Your task to perform on an android device: clear all cookies in the chrome app Image 0: 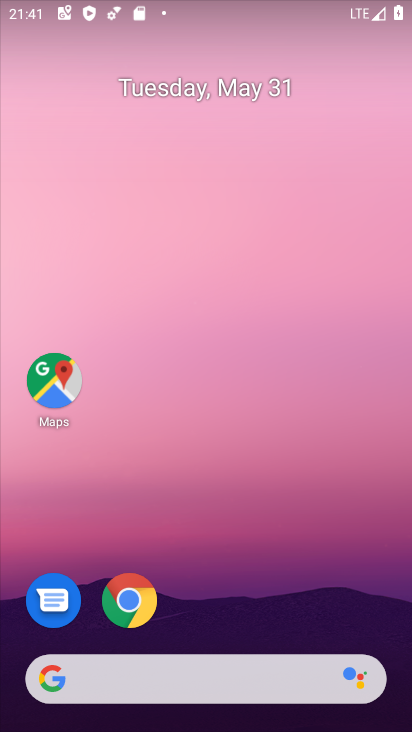
Step 0: click (144, 602)
Your task to perform on an android device: clear all cookies in the chrome app Image 1: 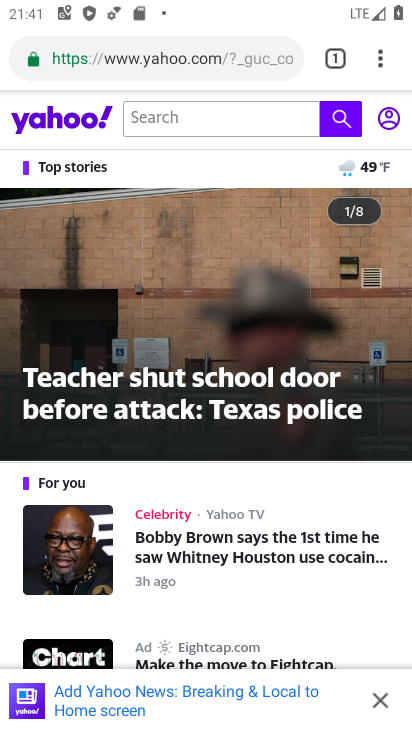
Step 1: drag from (379, 61) to (185, 392)
Your task to perform on an android device: clear all cookies in the chrome app Image 2: 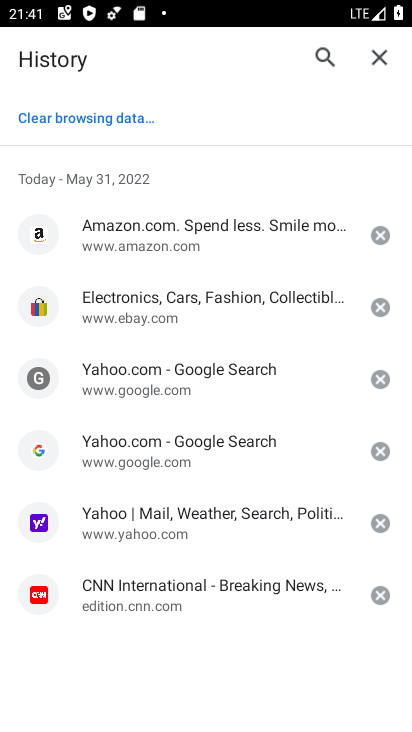
Step 2: click (48, 117)
Your task to perform on an android device: clear all cookies in the chrome app Image 3: 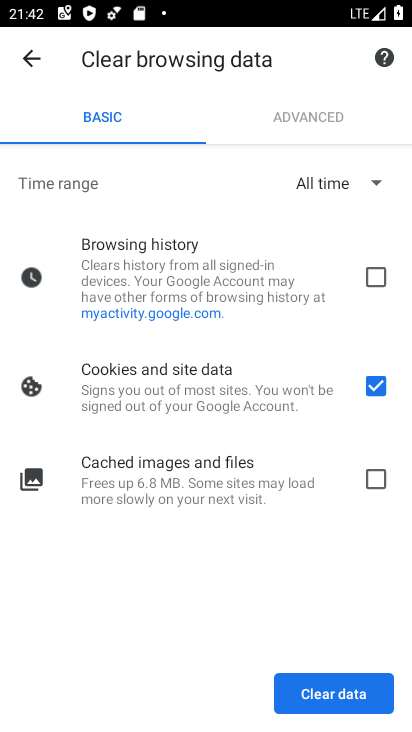
Step 3: click (299, 686)
Your task to perform on an android device: clear all cookies in the chrome app Image 4: 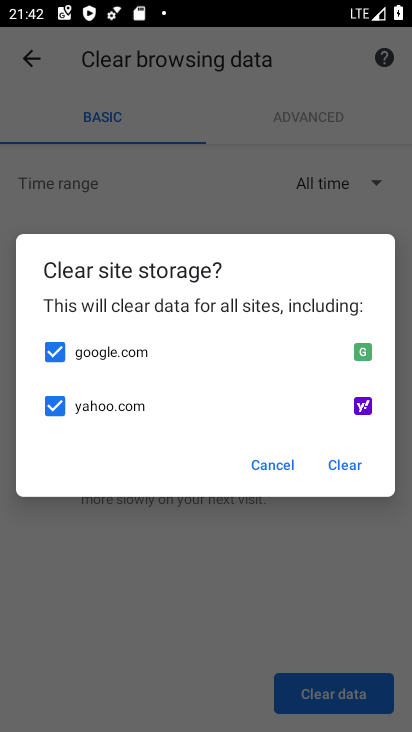
Step 4: click (344, 447)
Your task to perform on an android device: clear all cookies in the chrome app Image 5: 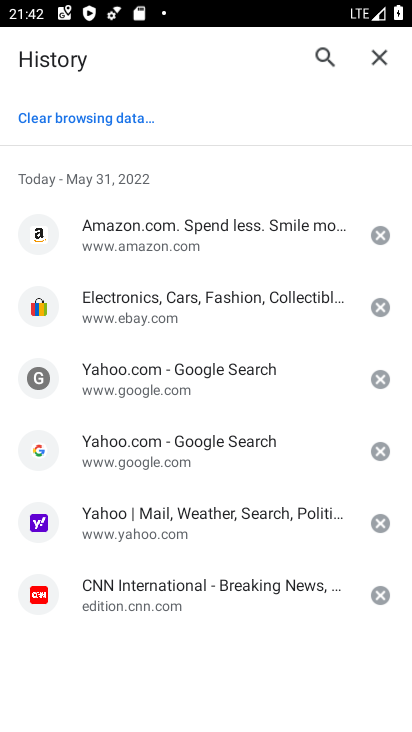
Step 5: task complete